Your task to perform on an android device: turn on the 24-hour format for clock Image 0: 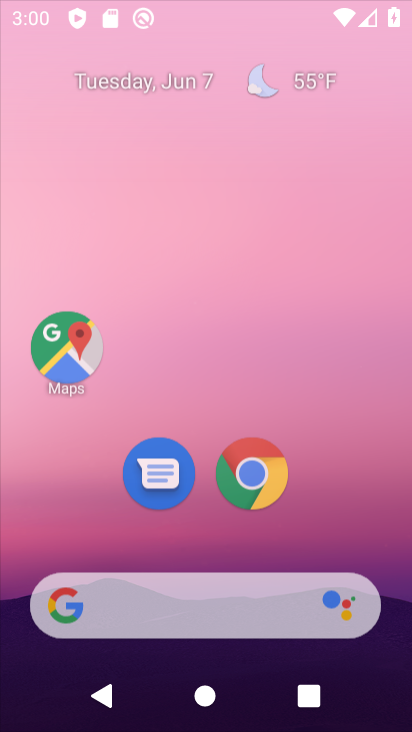
Step 0: press back button
Your task to perform on an android device: turn on the 24-hour format for clock Image 1: 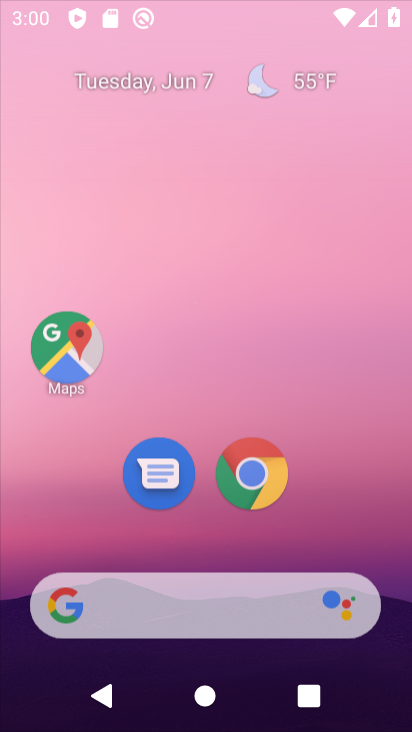
Step 1: click (219, 63)
Your task to perform on an android device: turn on the 24-hour format for clock Image 2: 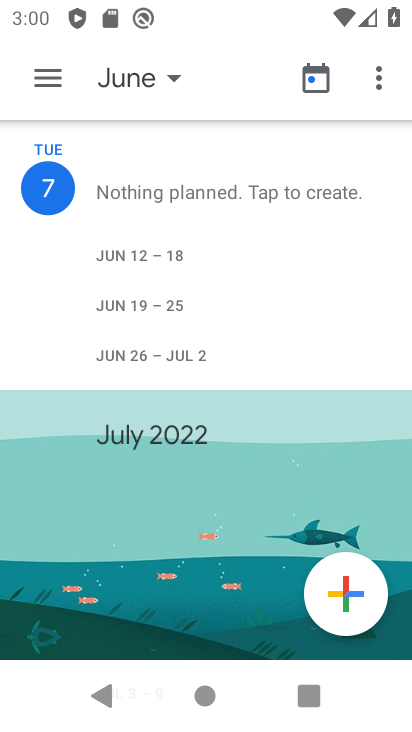
Step 2: press back button
Your task to perform on an android device: turn on the 24-hour format for clock Image 3: 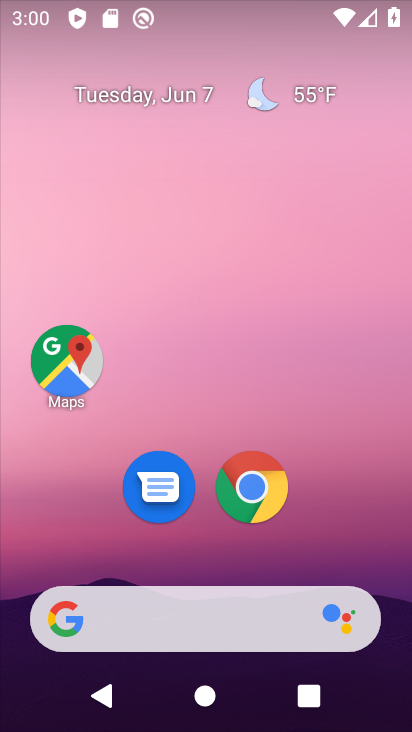
Step 3: drag from (258, 685) to (232, 136)
Your task to perform on an android device: turn on the 24-hour format for clock Image 4: 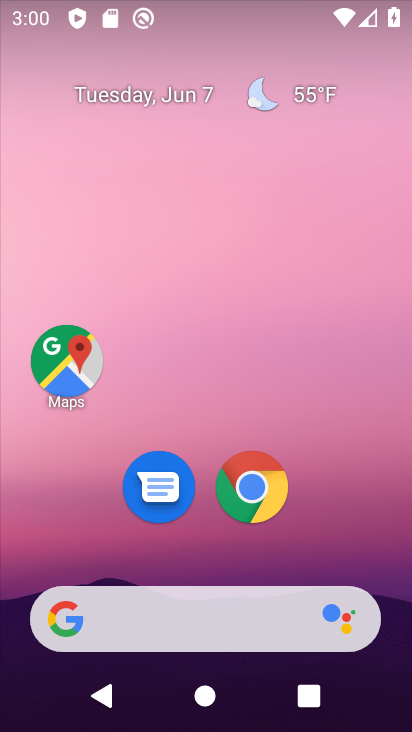
Step 4: drag from (240, 614) to (200, 109)
Your task to perform on an android device: turn on the 24-hour format for clock Image 5: 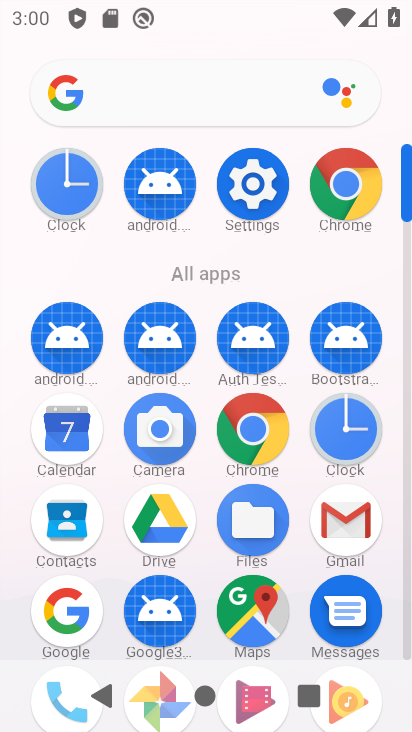
Step 5: drag from (267, 649) to (225, 190)
Your task to perform on an android device: turn on the 24-hour format for clock Image 6: 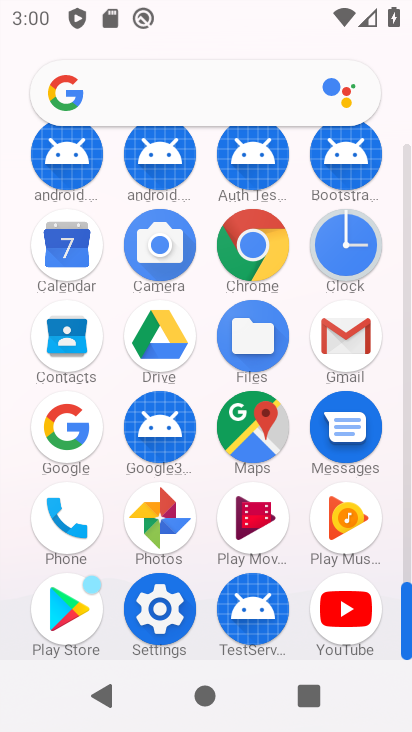
Step 6: click (343, 230)
Your task to perform on an android device: turn on the 24-hour format for clock Image 7: 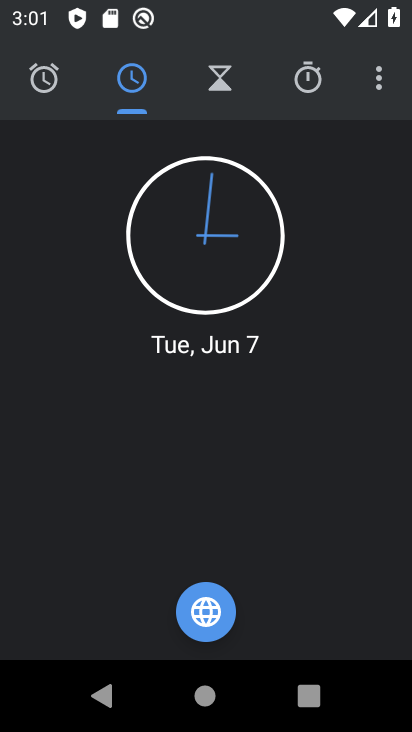
Step 7: click (384, 94)
Your task to perform on an android device: turn on the 24-hour format for clock Image 8: 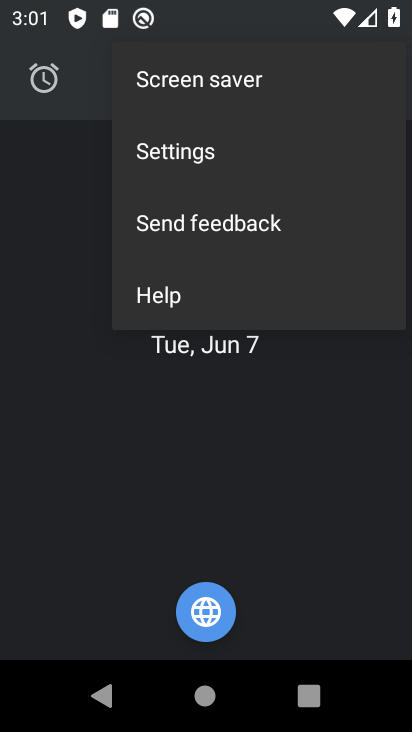
Step 8: click (191, 137)
Your task to perform on an android device: turn on the 24-hour format for clock Image 9: 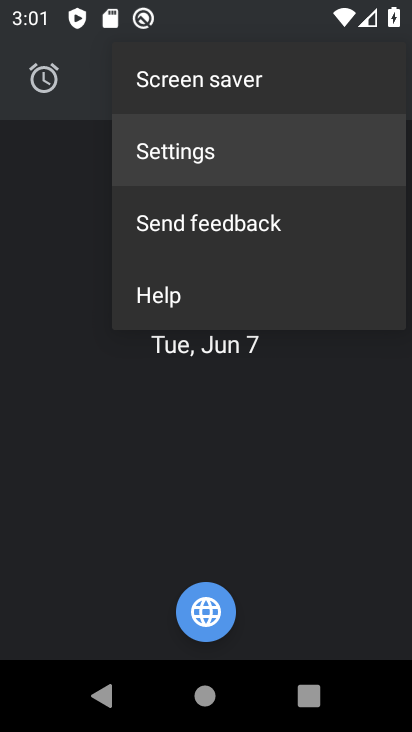
Step 9: click (185, 147)
Your task to perform on an android device: turn on the 24-hour format for clock Image 10: 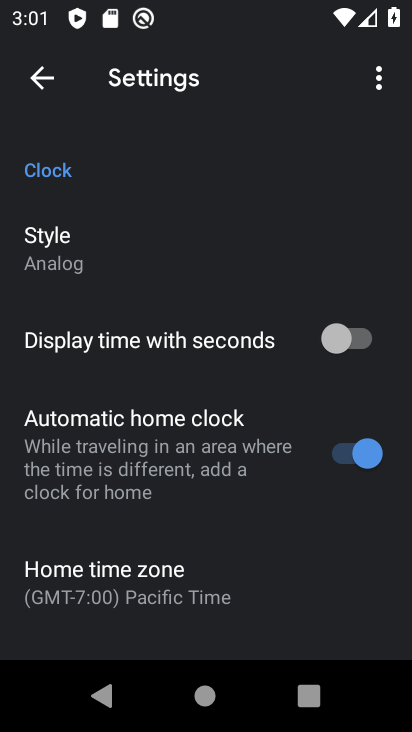
Step 10: drag from (203, 304) to (208, 234)
Your task to perform on an android device: turn on the 24-hour format for clock Image 11: 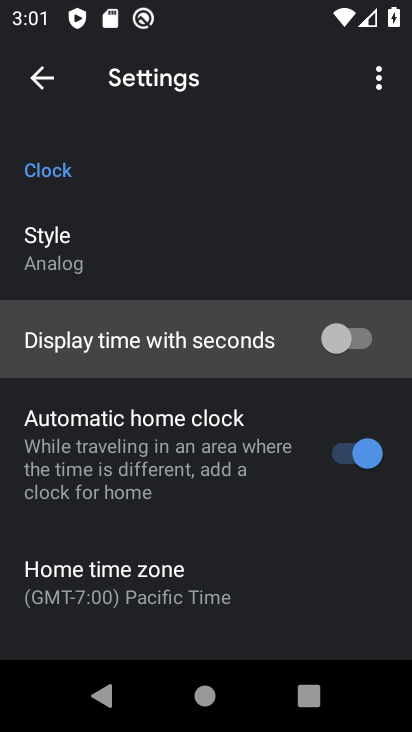
Step 11: drag from (212, 547) to (171, 250)
Your task to perform on an android device: turn on the 24-hour format for clock Image 12: 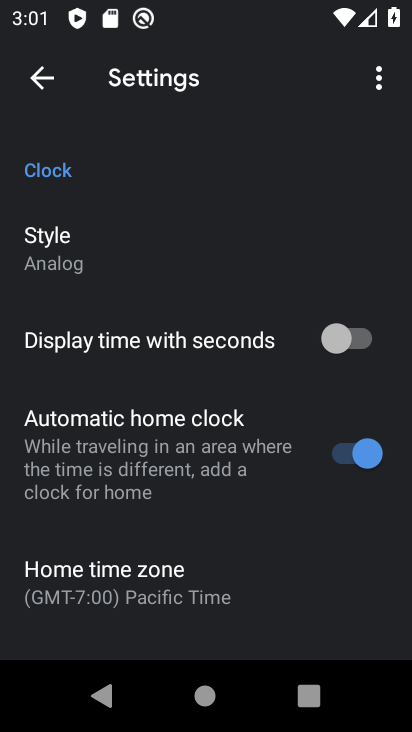
Step 12: drag from (253, 507) to (199, 220)
Your task to perform on an android device: turn on the 24-hour format for clock Image 13: 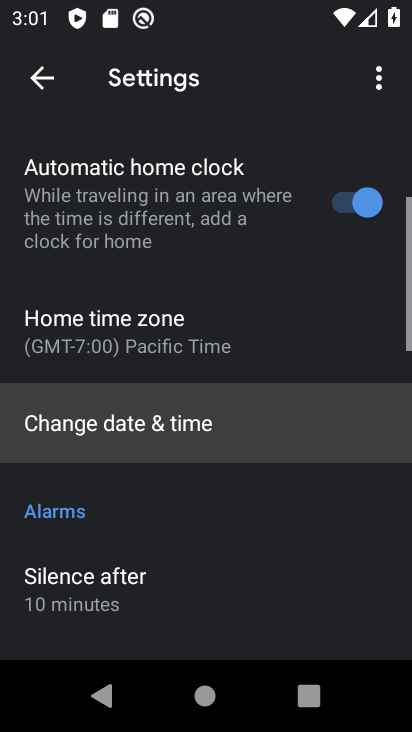
Step 13: drag from (249, 466) to (177, 229)
Your task to perform on an android device: turn on the 24-hour format for clock Image 14: 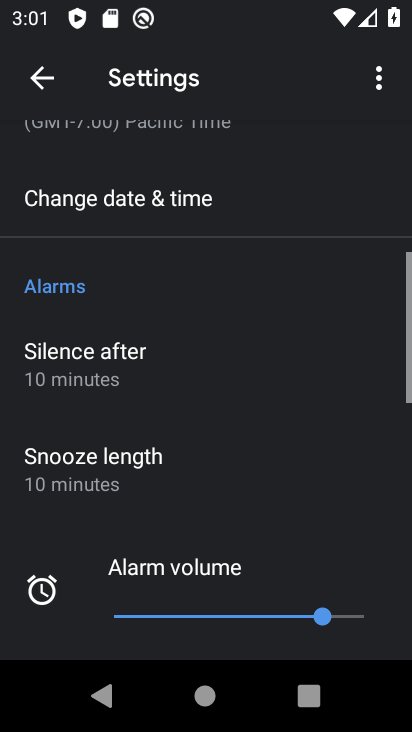
Step 14: drag from (156, 437) to (140, 260)
Your task to perform on an android device: turn on the 24-hour format for clock Image 15: 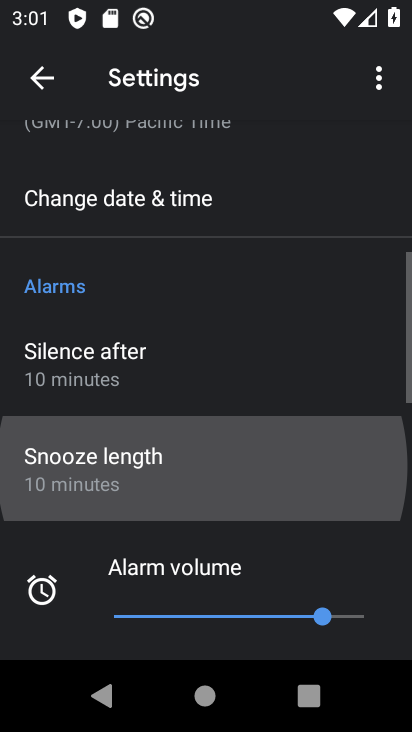
Step 15: drag from (190, 527) to (175, 270)
Your task to perform on an android device: turn on the 24-hour format for clock Image 16: 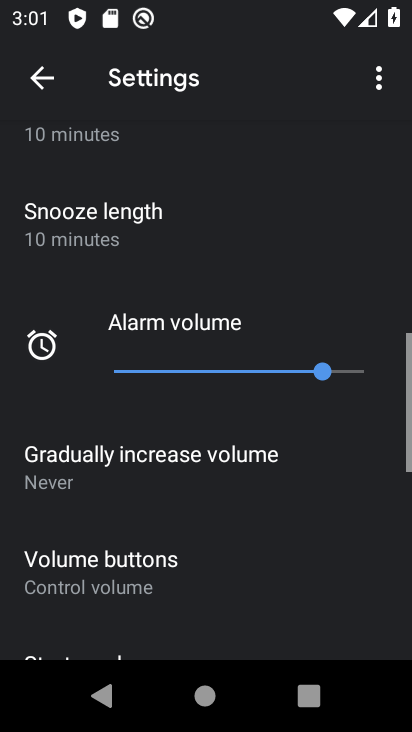
Step 16: drag from (197, 460) to (193, 307)
Your task to perform on an android device: turn on the 24-hour format for clock Image 17: 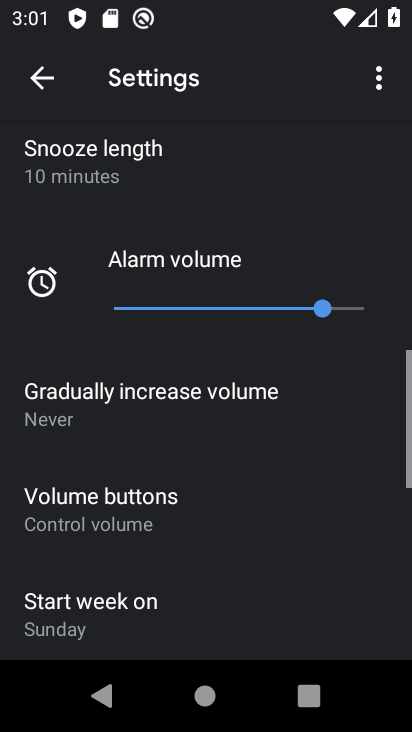
Step 17: drag from (246, 517) to (207, 305)
Your task to perform on an android device: turn on the 24-hour format for clock Image 18: 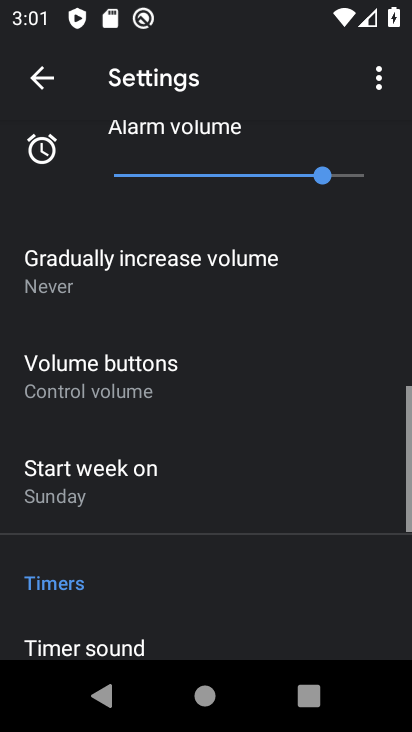
Step 18: drag from (216, 542) to (188, 330)
Your task to perform on an android device: turn on the 24-hour format for clock Image 19: 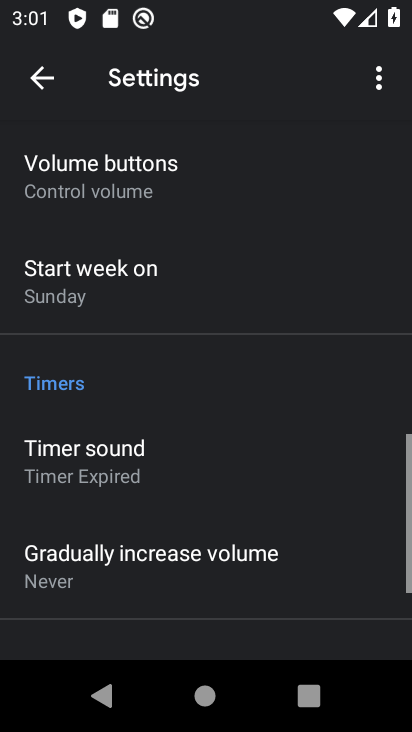
Step 19: drag from (234, 543) to (166, 312)
Your task to perform on an android device: turn on the 24-hour format for clock Image 20: 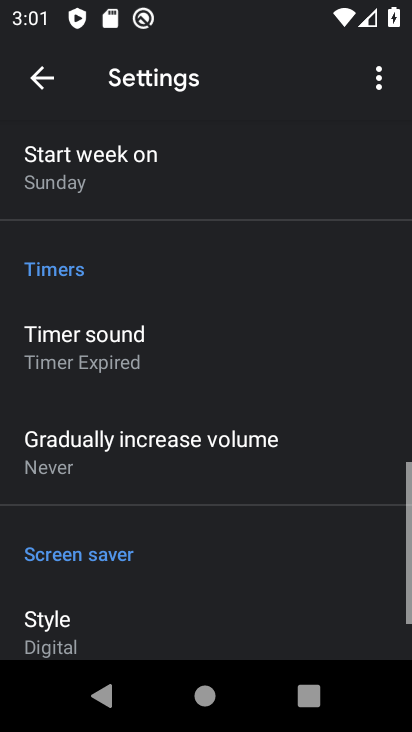
Step 20: drag from (207, 531) to (177, 380)
Your task to perform on an android device: turn on the 24-hour format for clock Image 21: 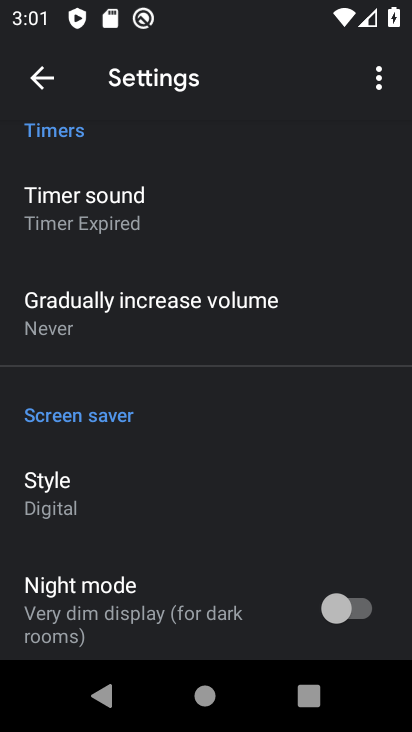
Step 21: drag from (161, 554) to (133, 369)
Your task to perform on an android device: turn on the 24-hour format for clock Image 22: 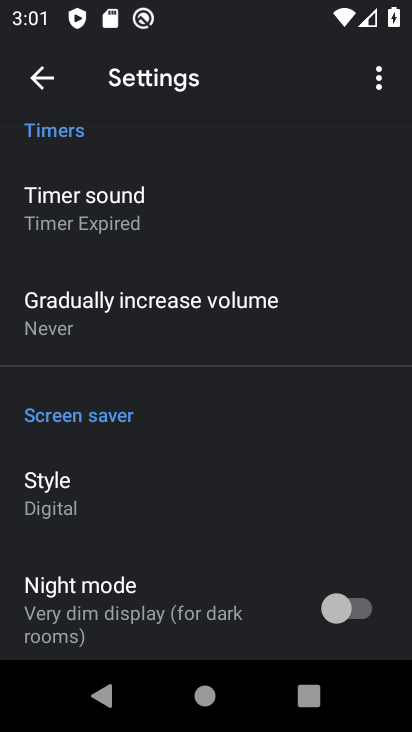
Step 22: drag from (195, 503) to (149, 317)
Your task to perform on an android device: turn on the 24-hour format for clock Image 23: 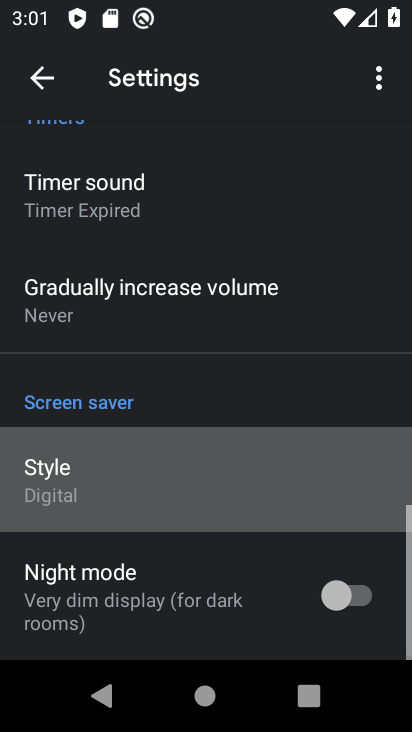
Step 23: drag from (132, 516) to (60, 325)
Your task to perform on an android device: turn on the 24-hour format for clock Image 24: 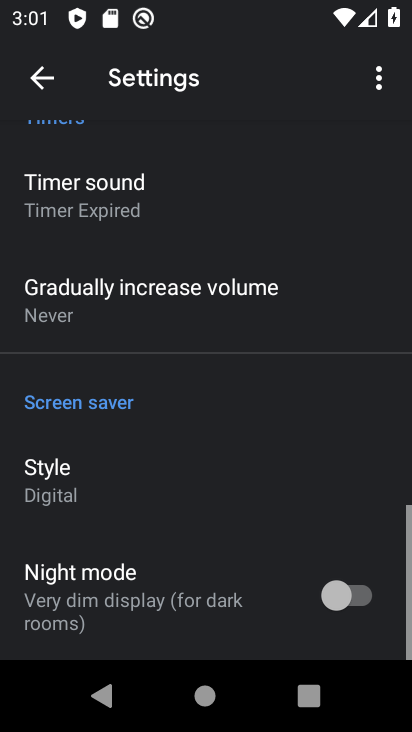
Step 24: drag from (96, 473) to (86, 395)
Your task to perform on an android device: turn on the 24-hour format for clock Image 25: 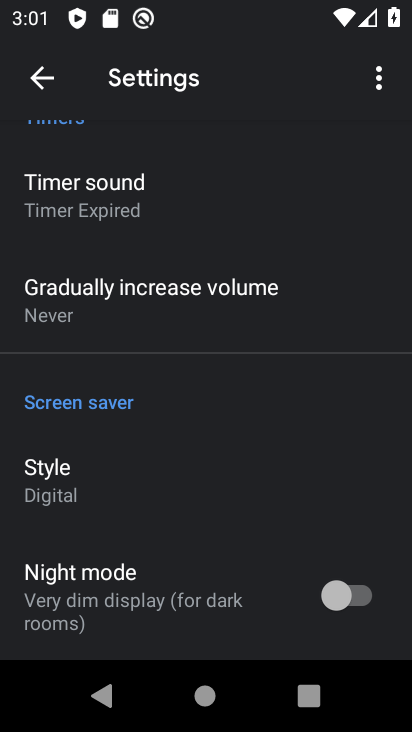
Step 25: drag from (113, 325) to (177, 589)
Your task to perform on an android device: turn on the 24-hour format for clock Image 26: 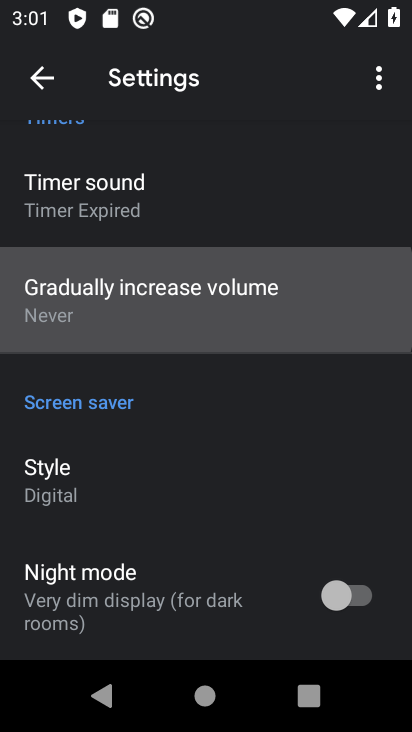
Step 26: drag from (128, 247) to (183, 444)
Your task to perform on an android device: turn on the 24-hour format for clock Image 27: 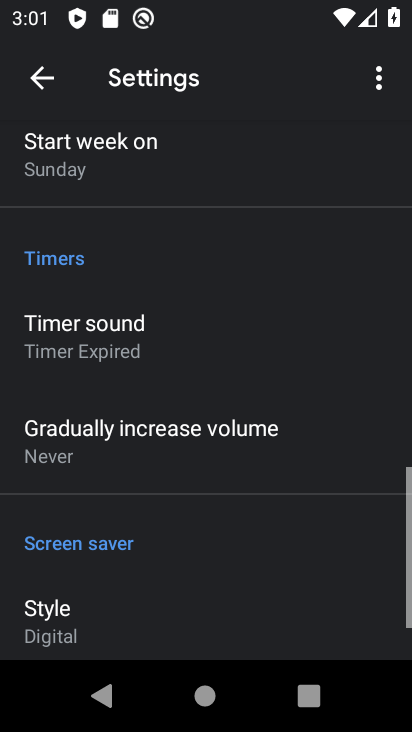
Step 27: drag from (145, 271) to (232, 563)
Your task to perform on an android device: turn on the 24-hour format for clock Image 28: 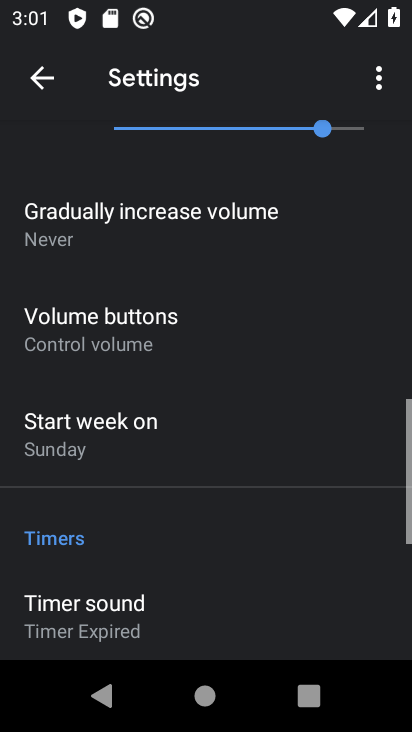
Step 28: drag from (214, 420) to (248, 546)
Your task to perform on an android device: turn on the 24-hour format for clock Image 29: 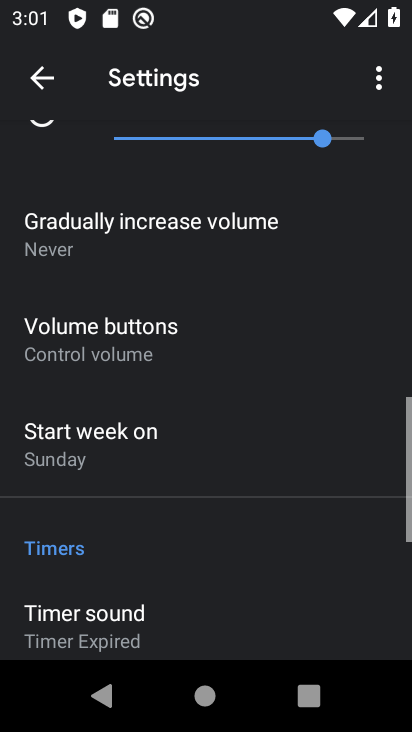
Step 29: drag from (179, 330) to (257, 526)
Your task to perform on an android device: turn on the 24-hour format for clock Image 30: 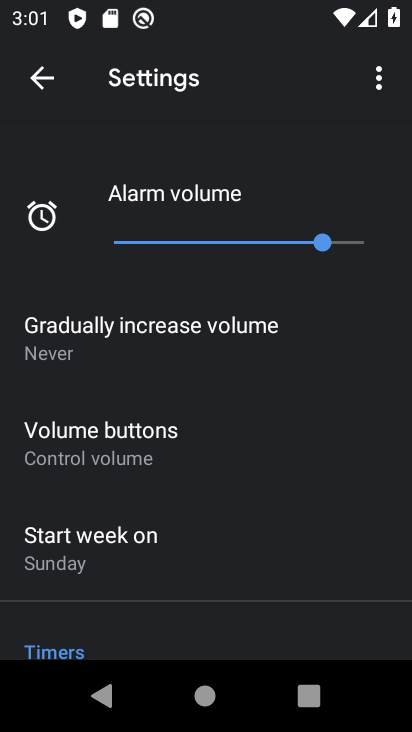
Step 30: drag from (207, 226) to (296, 522)
Your task to perform on an android device: turn on the 24-hour format for clock Image 31: 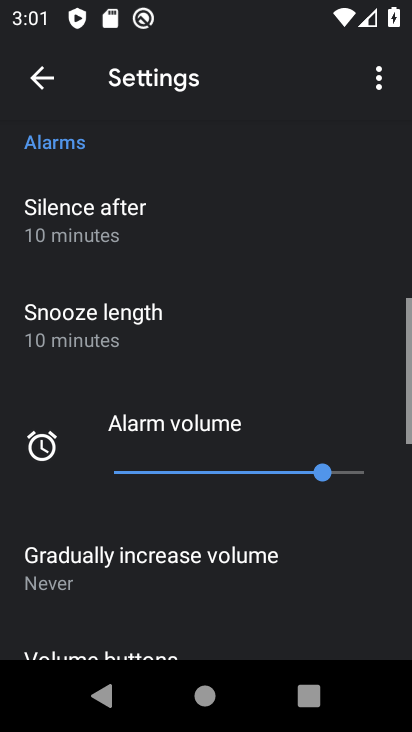
Step 31: drag from (204, 219) to (239, 489)
Your task to perform on an android device: turn on the 24-hour format for clock Image 32: 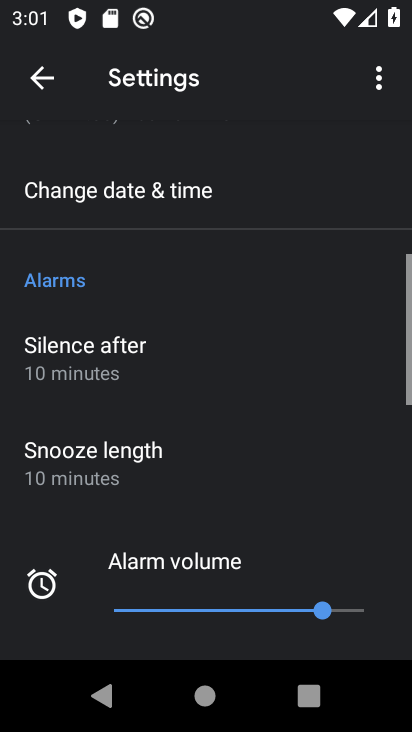
Step 32: drag from (187, 269) to (222, 470)
Your task to perform on an android device: turn on the 24-hour format for clock Image 33: 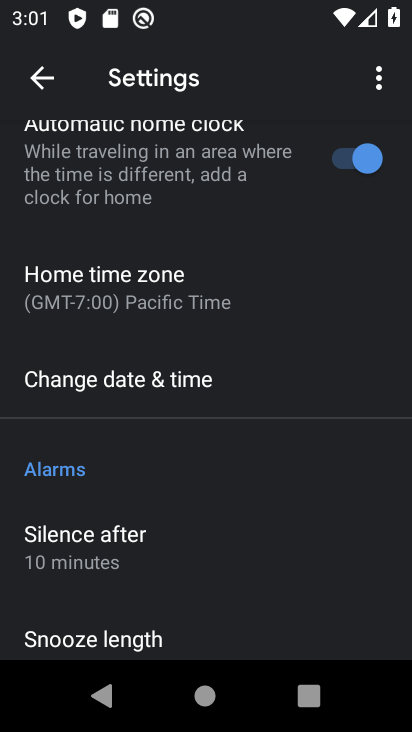
Step 33: click (211, 389)
Your task to perform on an android device: turn on the 24-hour format for clock Image 34: 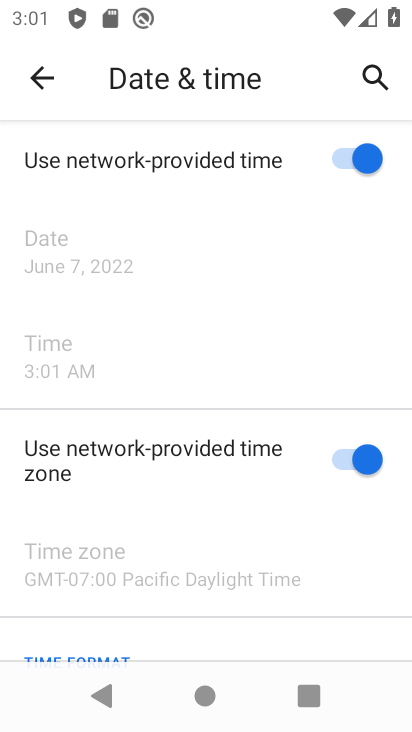
Step 34: drag from (266, 554) to (186, 279)
Your task to perform on an android device: turn on the 24-hour format for clock Image 35: 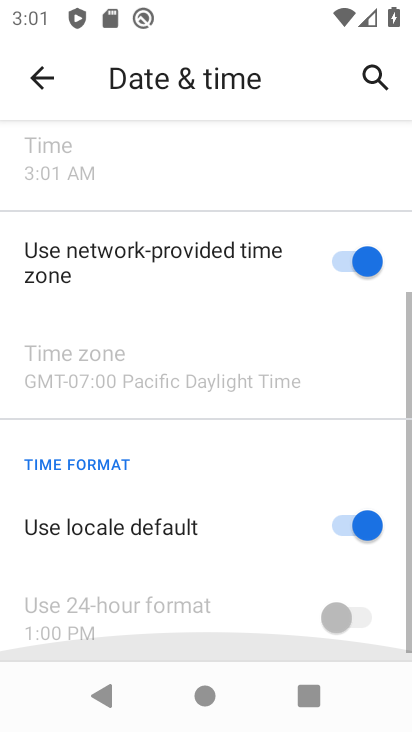
Step 35: drag from (218, 481) to (196, 276)
Your task to perform on an android device: turn on the 24-hour format for clock Image 36: 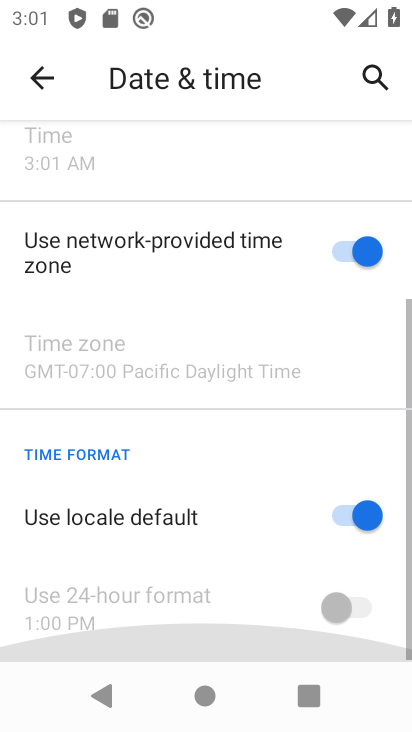
Step 36: drag from (246, 520) to (243, 300)
Your task to perform on an android device: turn on the 24-hour format for clock Image 37: 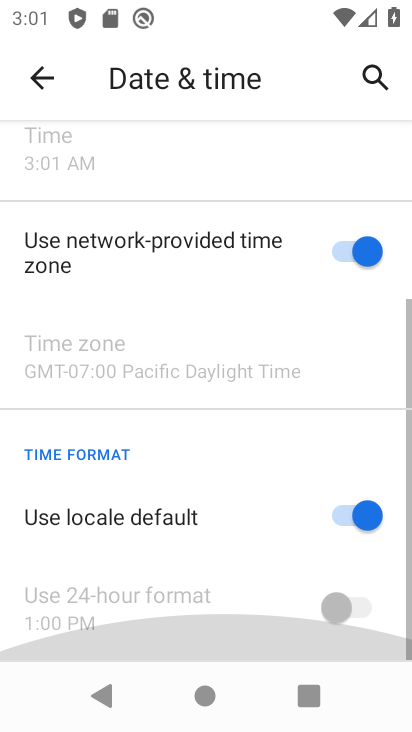
Step 37: drag from (276, 531) to (276, 361)
Your task to perform on an android device: turn on the 24-hour format for clock Image 38: 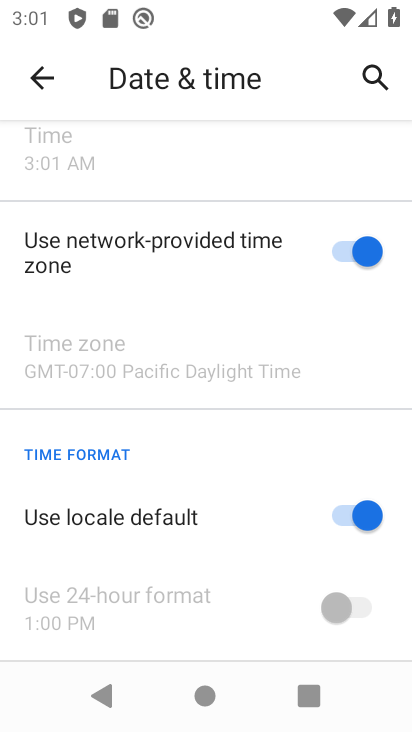
Step 38: click (362, 512)
Your task to perform on an android device: turn on the 24-hour format for clock Image 39: 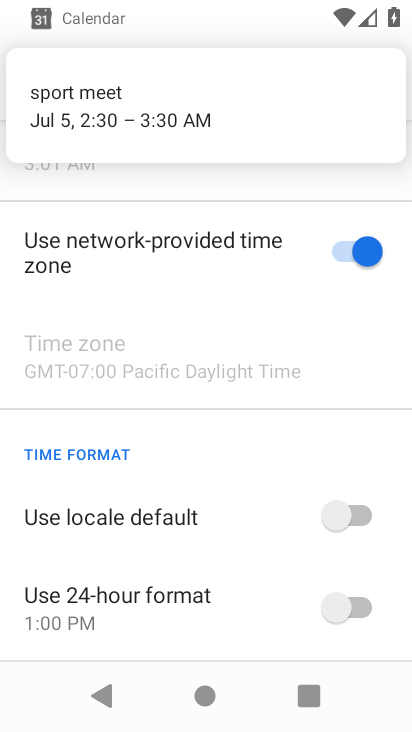
Step 39: click (341, 617)
Your task to perform on an android device: turn on the 24-hour format for clock Image 40: 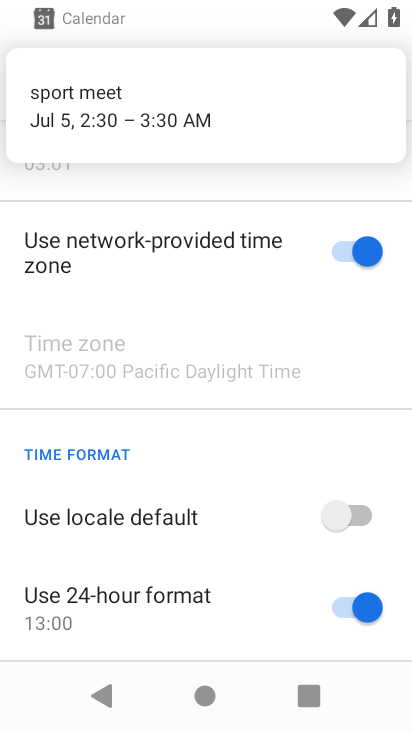
Step 40: task complete